Your task to perform on an android device: turn pop-ups on in chrome Image 0: 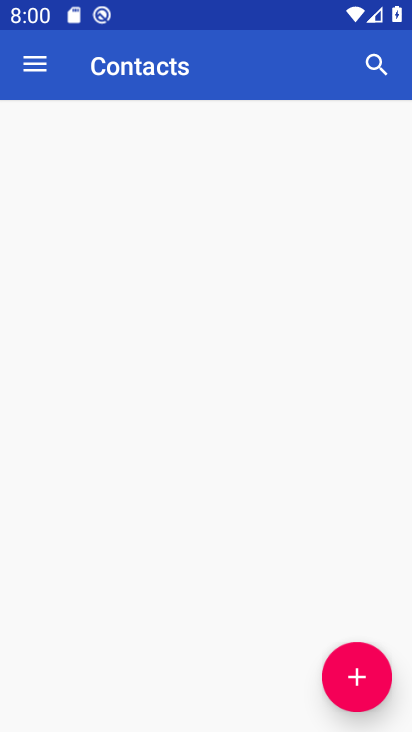
Step 0: press home button
Your task to perform on an android device: turn pop-ups on in chrome Image 1: 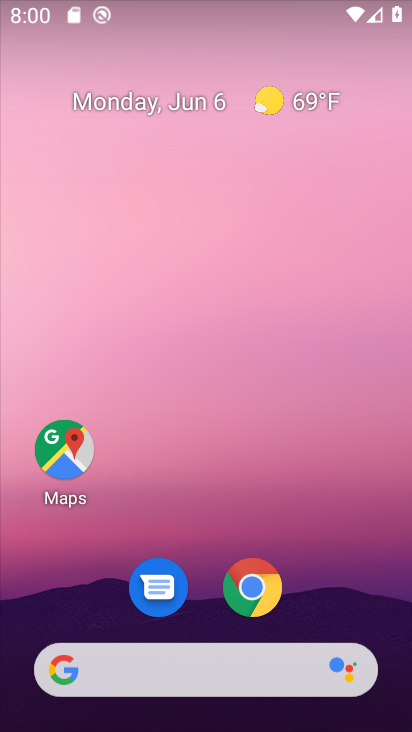
Step 1: drag from (345, 591) to (329, 339)
Your task to perform on an android device: turn pop-ups on in chrome Image 2: 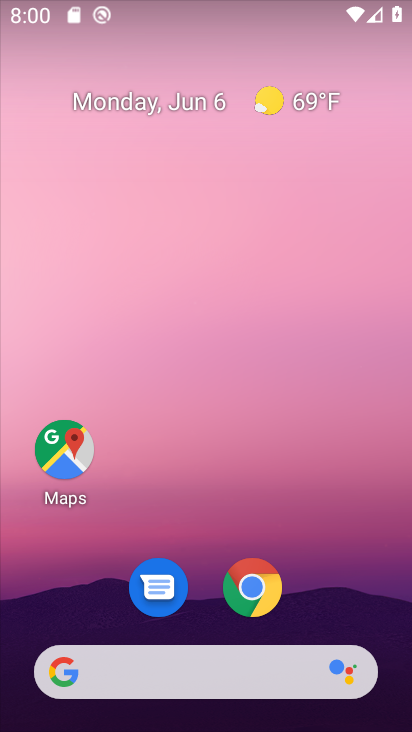
Step 2: click (256, 584)
Your task to perform on an android device: turn pop-ups on in chrome Image 3: 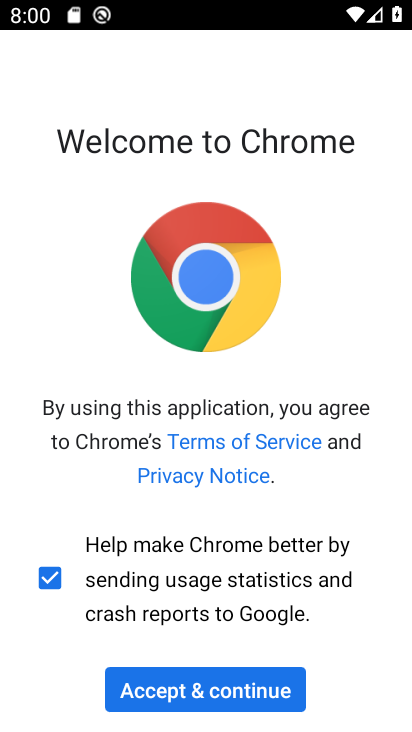
Step 3: click (247, 679)
Your task to perform on an android device: turn pop-ups on in chrome Image 4: 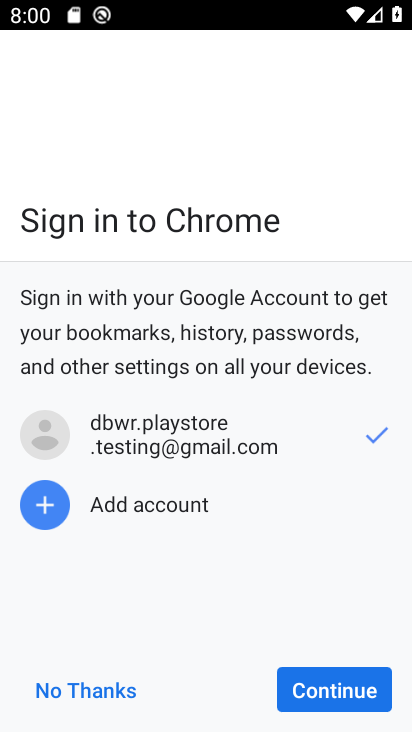
Step 4: click (345, 672)
Your task to perform on an android device: turn pop-ups on in chrome Image 5: 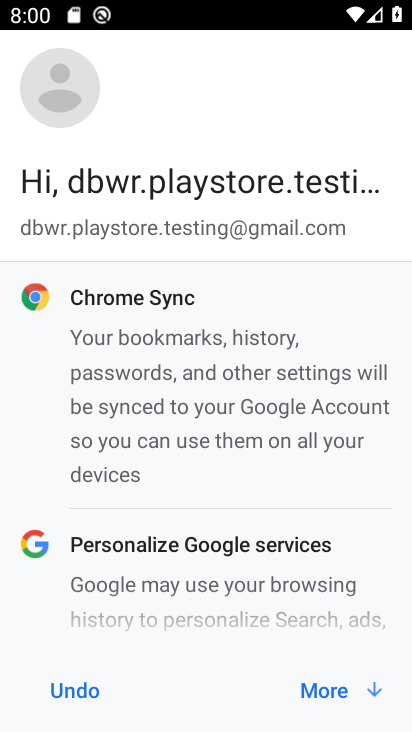
Step 5: click (331, 690)
Your task to perform on an android device: turn pop-ups on in chrome Image 6: 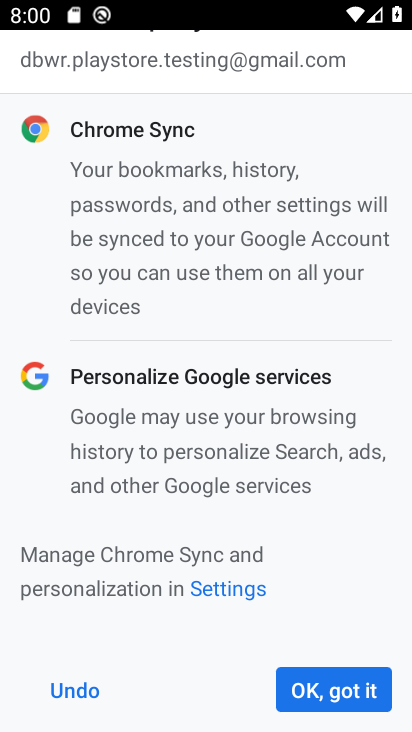
Step 6: click (331, 690)
Your task to perform on an android device: turn pop-ups on in chrome Image 7: 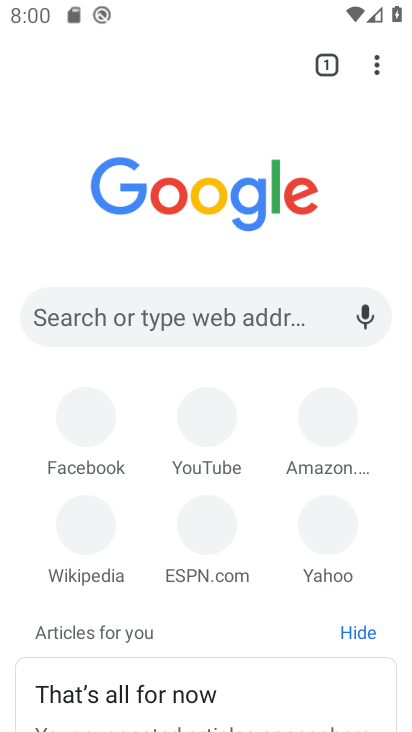
Step 7: drag from (234, 510) to (260, 594)
Your task to perform on an android device: turn pop-ups on in chrome Image 8: 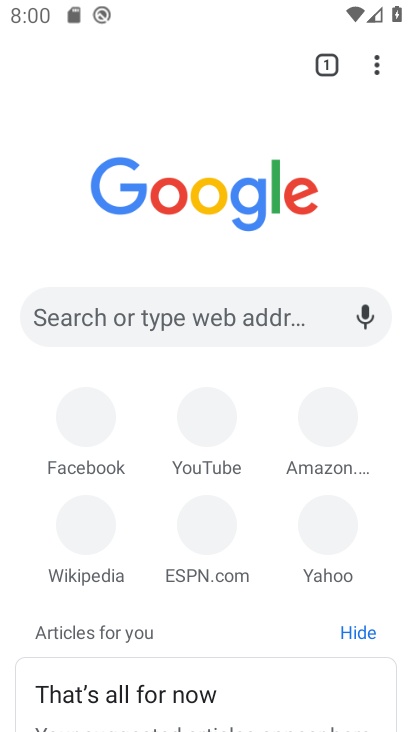
Step 8: drag from (375, 60) to (190, 542)
Your task to perform on an android device: turn pop-ups on in chrome Image 9: 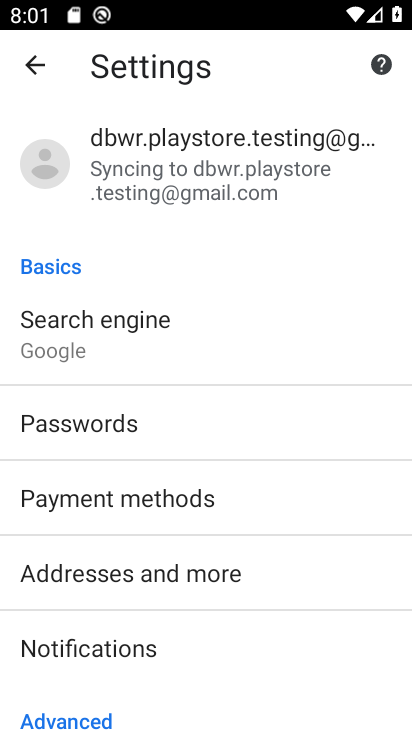
Step 9: drag from (251, 504) to (276, 137)
Your task to perform on an android device: turn pop-ups on in chrome Image 10: 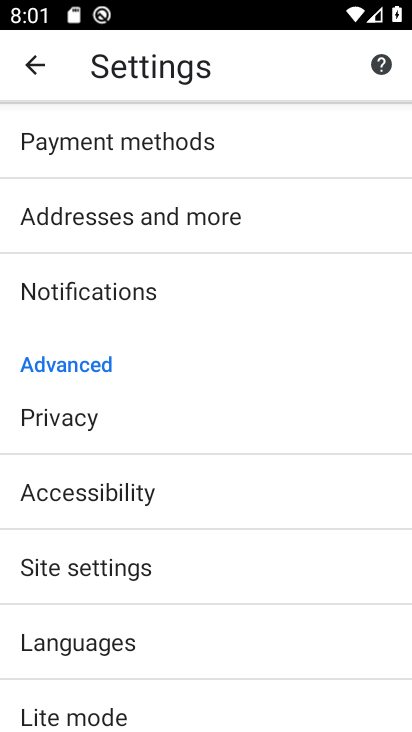
Step 10: click (119, 565)
Your task to perform on an android device: turn pop-ups on in chrome Image 11: 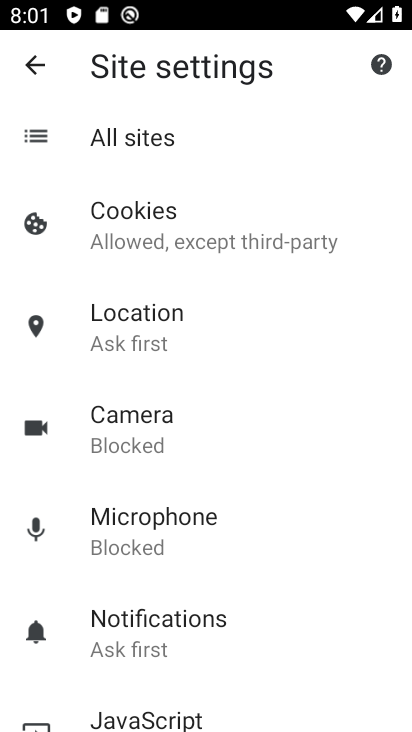
Step 11: drag from (290, 616) to (292, 204)
Your task to perform on an android device: turn pop-ups on in chrome Image 12: 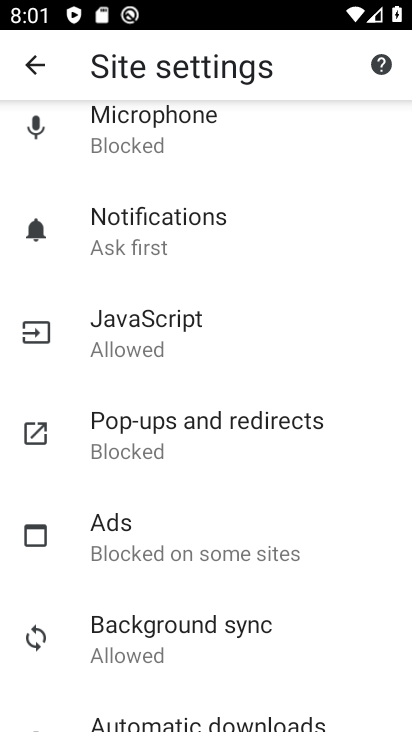
Step 12: click (218, 449)
Your task to perform on an android device: turn pop-ups on in chrome Image 13: 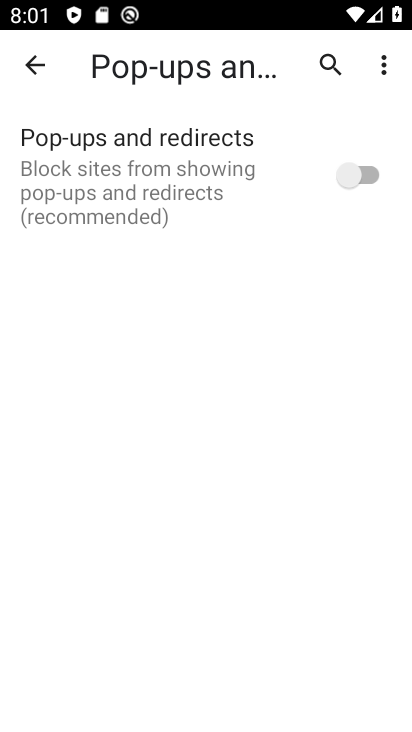
Step 13: click (365, 166)
Your task to perform on an android device: turn pop-ups on in chrome Image 14: 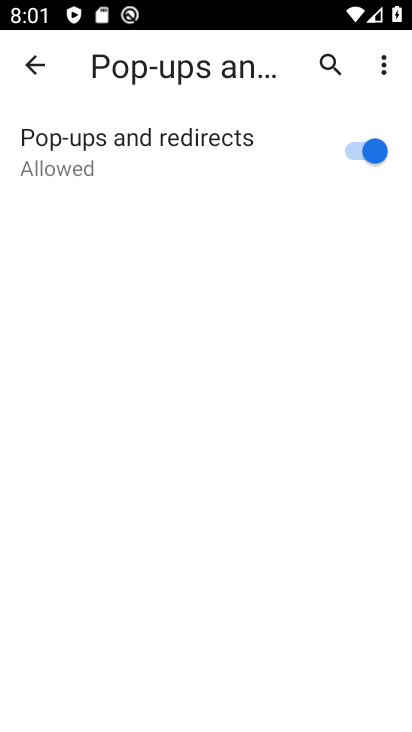
Step 14: task complete